Your task to perform on an android device: toggle show notifications on the lock screen Image 0: 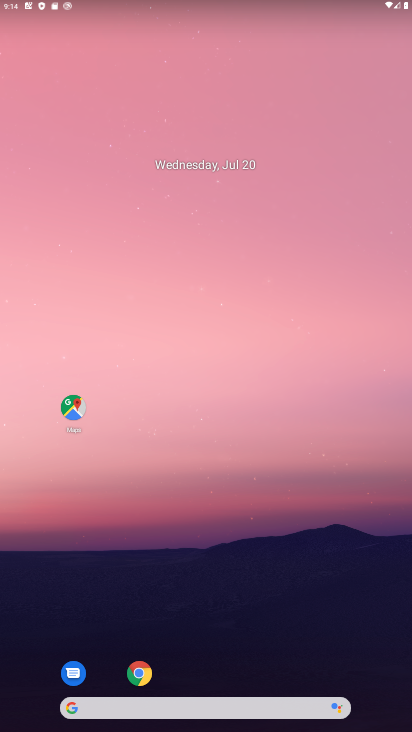
Step 0: drag from (191, 578) to (183, 443)
Your task to perform on an android device: toggle show notifications on the lock screen Image 1: 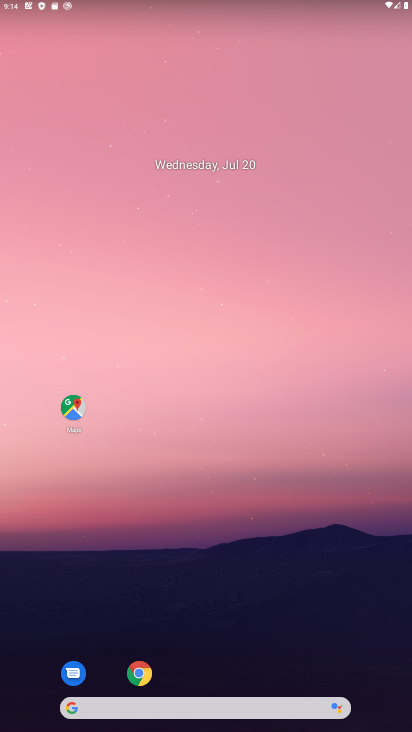
Step 1: drag from (184, 667) to (314, 291)
Your task to perform on an android device: toggle show notifications on the lock screen Image 2: 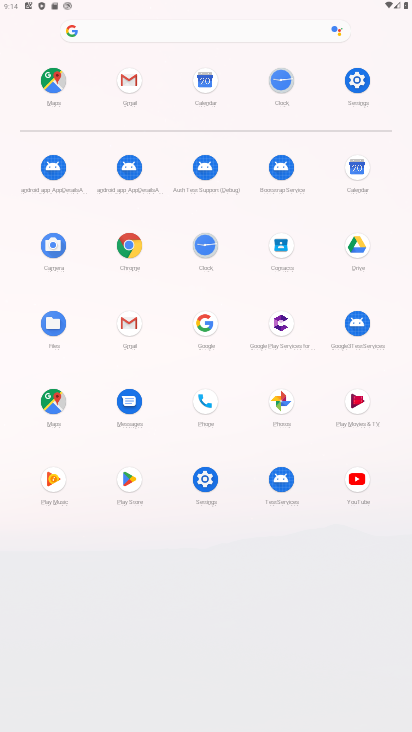
Step 2: click (210, 480)
Your task to perform on an android device: toggle show notifications on the lock screen Image 3: 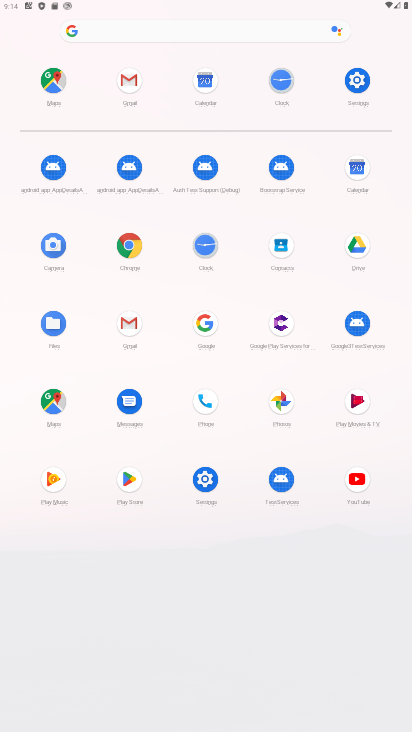
Step 3: click (210, 480)
Your task to perform on an android device: toggle show notifications on the lock screen Image 4: 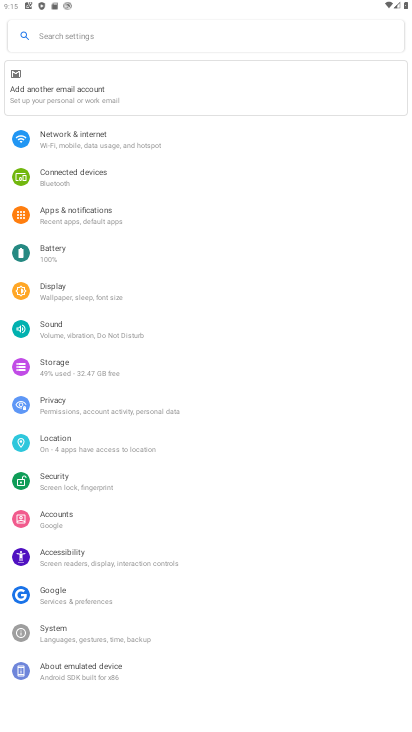
Step 4: click (129, 232)
Your task to perform on an android device: toggle show notifications on the lock screen Image 5: 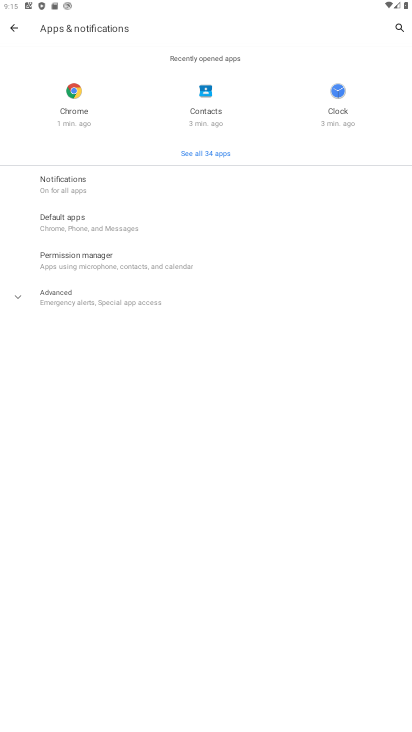
Step 5: click (91, 187)
Your task to perform on an android device: toggle show notifications on the lock screen Image 6: 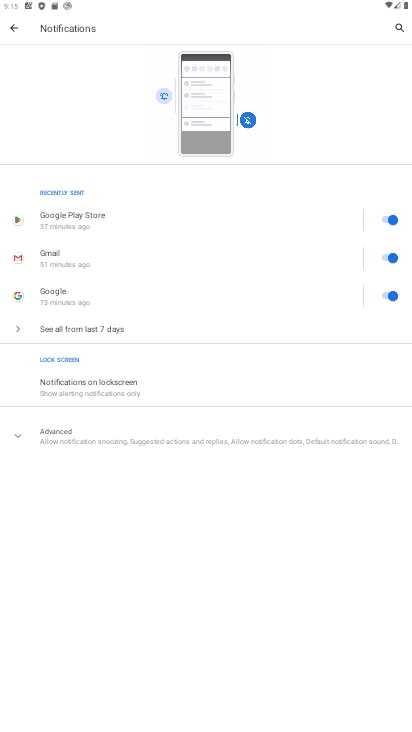
Step 6: click (121, 379)
Your task to perform on an android device: toggle show notifications on the lock screen Image 7: 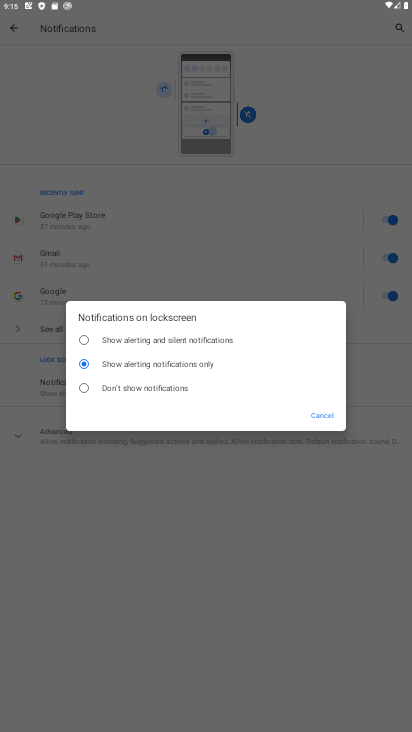
Step 7: click (105, 343)
Your task to perform on an android device: toggle show notifications on the lock screen Image 8: 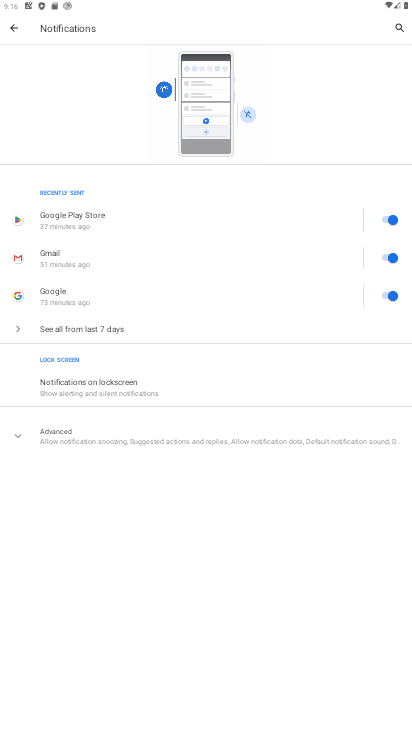
Step 8: task complete